Your task to perform on an android device: Open the calendar app, open the side menu, and click the "Day" option Image 0: 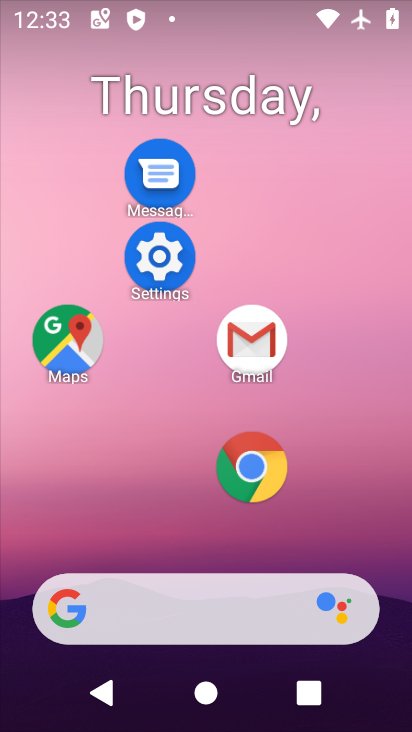
Step 0: drag from (154, 498) to (262, 9)
Your task to perform on an android device: Open the calendar app, open the side menu, and click the "Day" option Image 1: 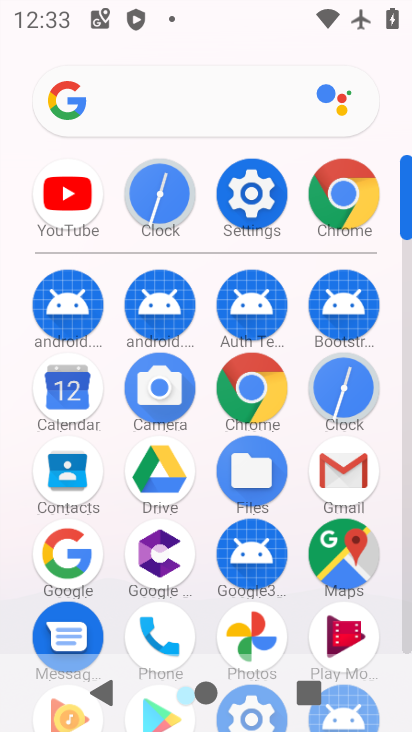
Step 1: click (58, 398)
Your task to perform on an android device: Open the calendar app, open the side menu, and click the "Day" option Image 2: 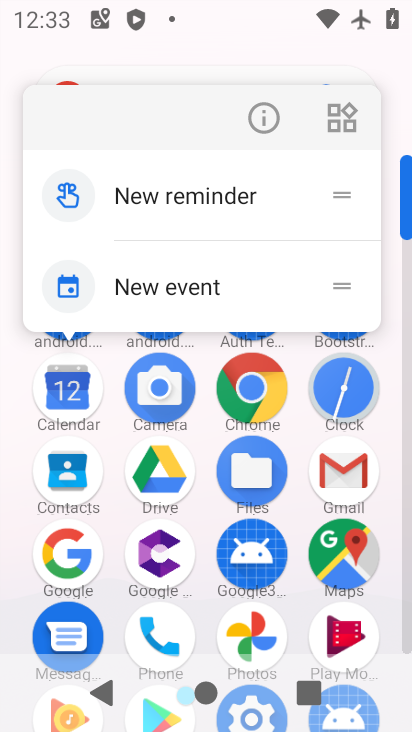
Step 2: click (270, 123)
Your task to perform on an android device: Open the calendar app, open the side menu, and click the "Day" option Image 3: 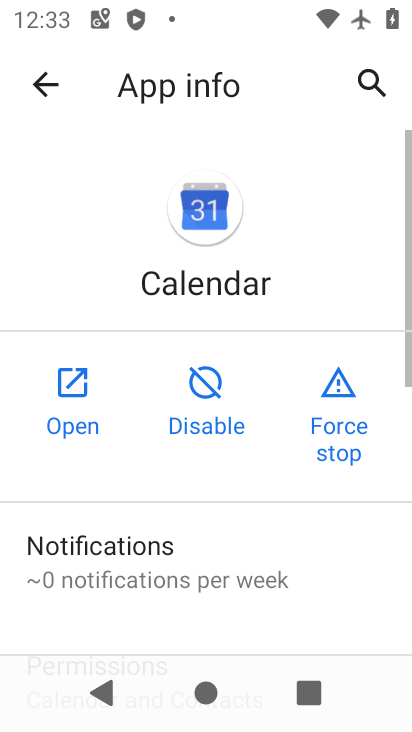
Step 3: click (68, 401)
Your task to perform on an android device: Open the calendar app, open the side menu, and click the "Day" option Image 4: 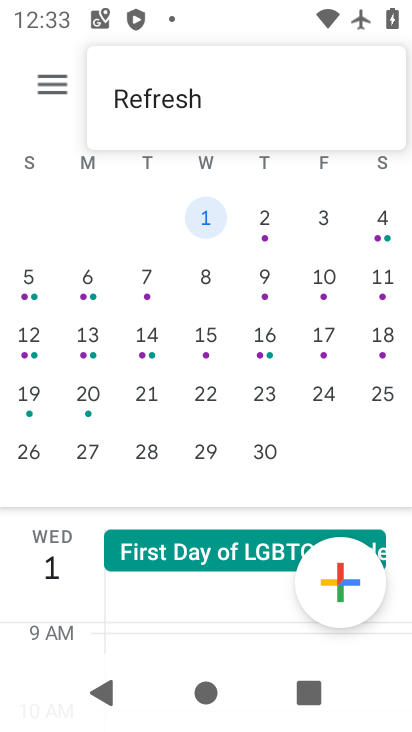
Step 4: click (66, 393)
Your task to perform on an android device: Open the calendar app, open the side menu, and click the "Day" option Image 5: 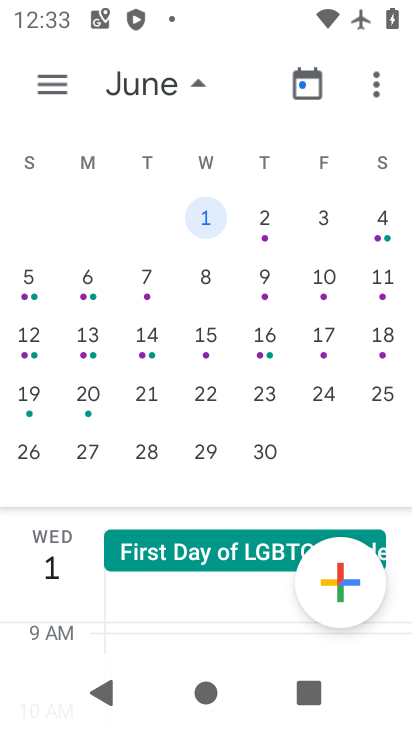
Step 5: click (54, 86)
Your task to perform on an android device: Open the calendar app, open the side menu, and click the "Day" option Image 6: 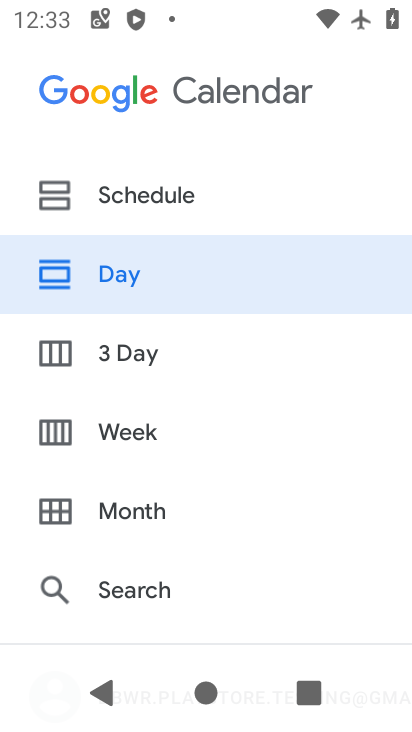
Step 6: click (140, 275)
Your task to perform on an android device: Open the calendar app, open the side menu, and click the "Day" option Image 7: 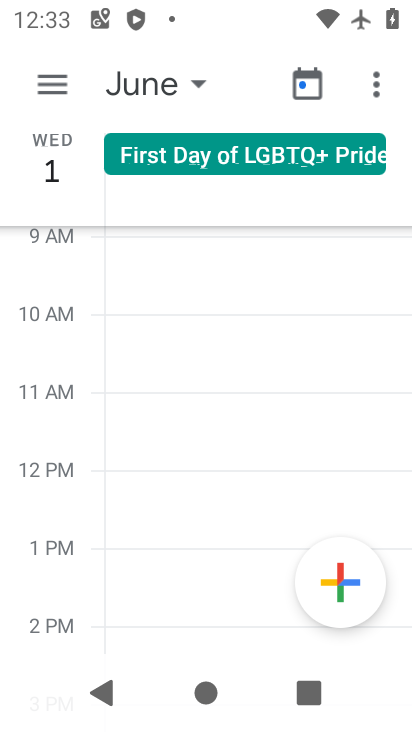
Step 7: click (164, 56)
Your task to perform on an android device: Open the calendar app, open the side menu, and click the "Day" option Image 8: 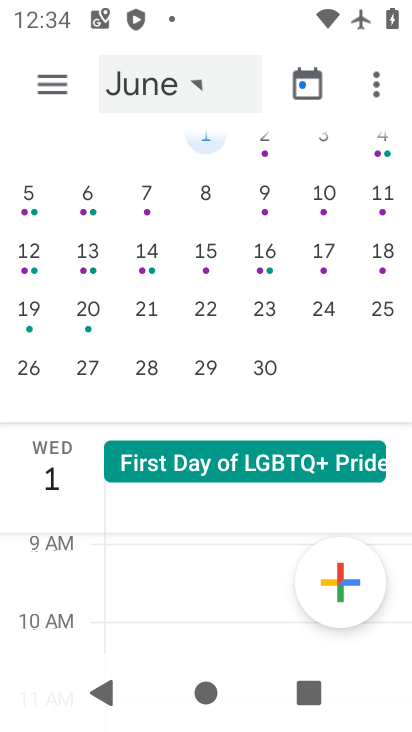
Step 8: click (166, 81)
Your task to perform on an android device: Open the calendar app, open the side menu, and click the "Day" option Image 9: 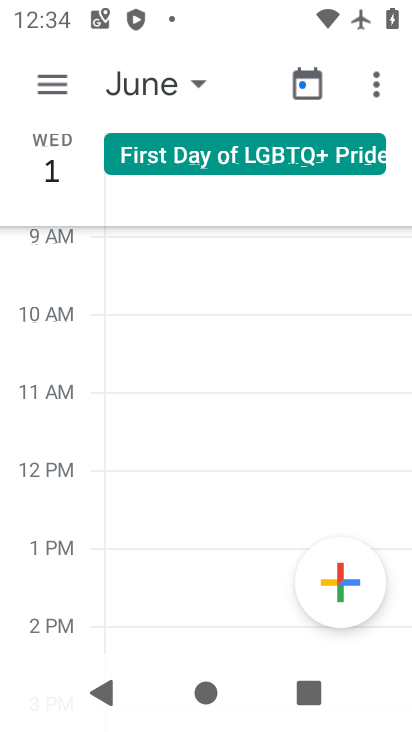
Step 9: click (167, 81)
Your task to perform on an android device: Open the calendar app, open the side menu, and click the "Day" option Image 10: 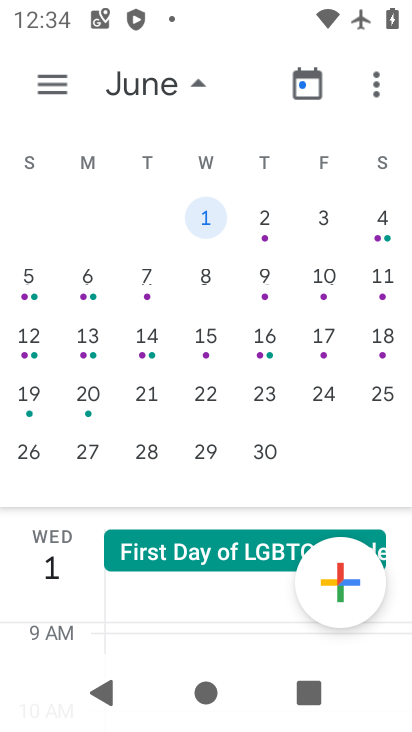
Step 10: click (46, 84)
Your task to perform on an android device: Open the calendar app, open the side menu, and click the "Day" option Image 11: 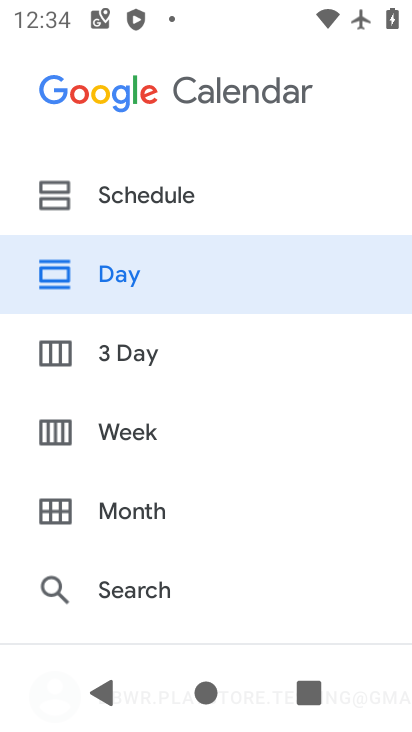
Step 11: click (115, 250)
Your task to perform on an android device: Open the calendar app, open the side menu, and click the "Day" option Image 12: 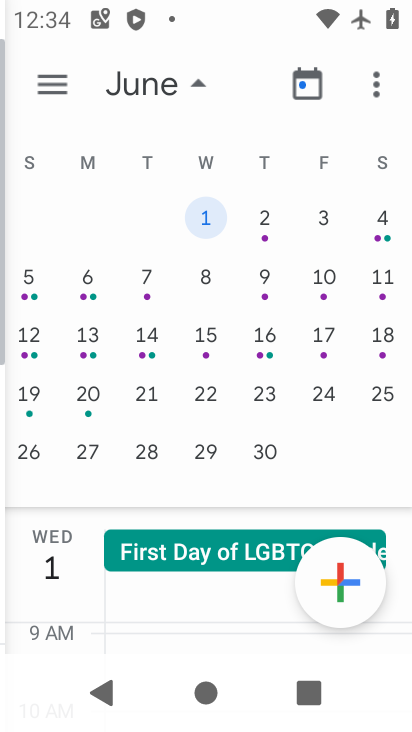
Step 12: task complete